Your task to perform on an android device: change the clock display to digital Image 0: 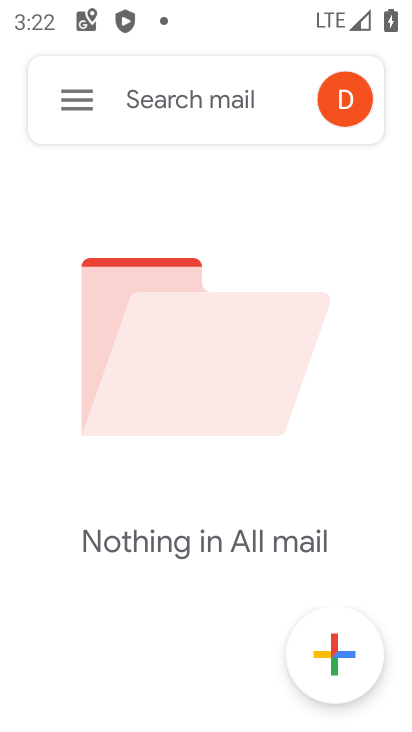
Step 0: press back button
Your task to perform on an android device: change the clock display to digital Image 1: 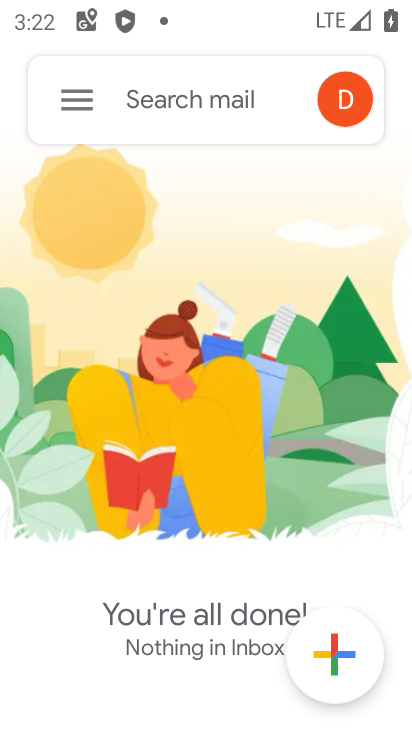
Step 1: press back button
Your task to perform on an android device: change the clock display to digital Image 2: 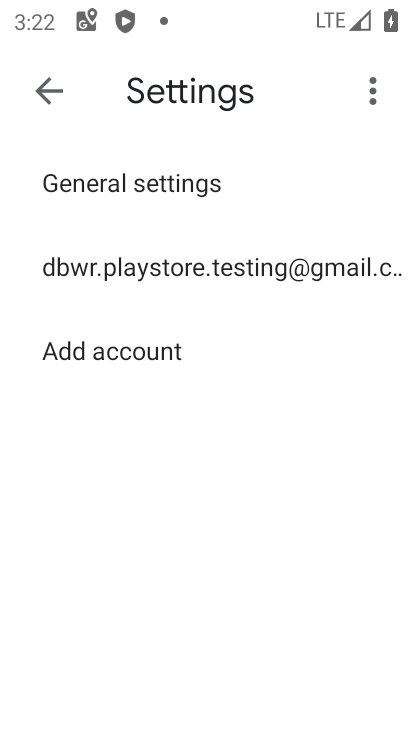
Step 2: press back button
Your task to perform on an android device: change the clock display to digital Image 3: 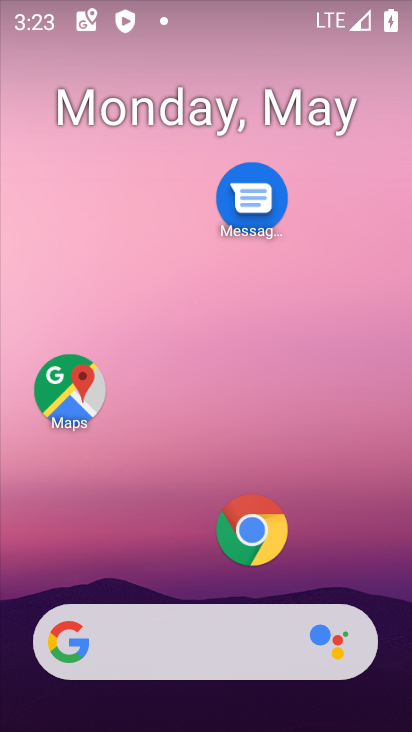
Step 3: drag from (182, 540) to (224, 18)
Your task to perform on an android device: change the clock display to digital Image 4: 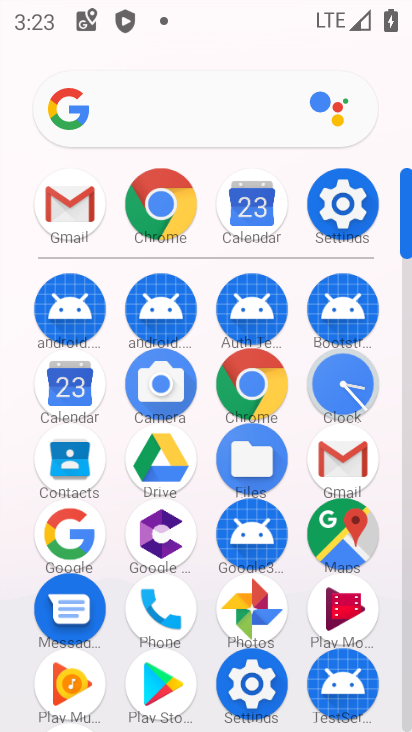
Step 4: click (340, 376)
Your task to perform on an android device: change the clock display to digital Image 5: 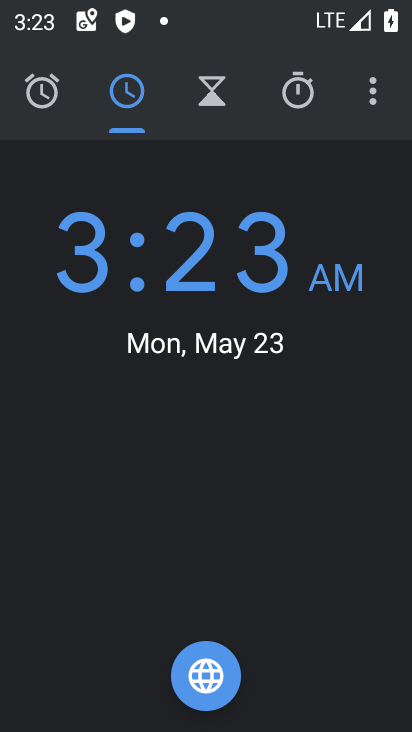
Step 5: click (375, 84)
Your task to perform on an android device: change the clock display to digital Image 6: 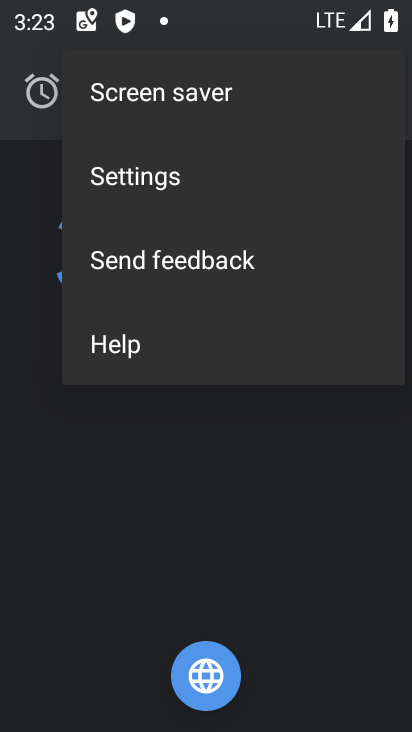
Step 6: click (189, 172)
Your task to perform on an android device: change the clock display to digital Image 7: 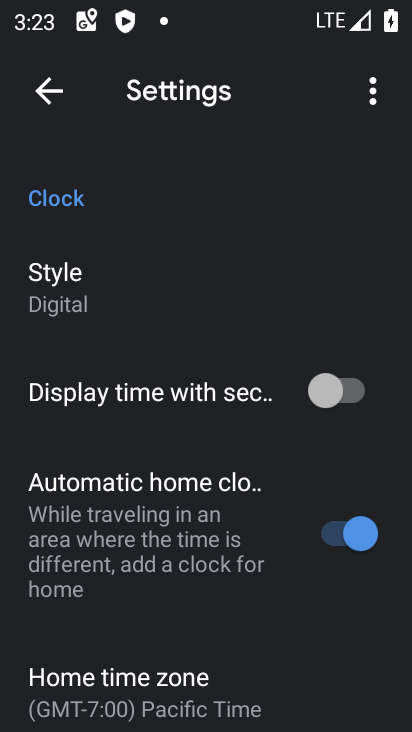
Step 7: task complete